Your task to perform on an android device: set the timer Image 0: 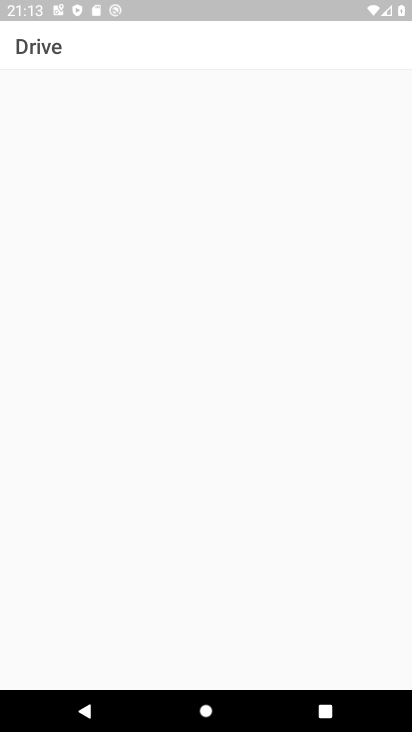
Step 0: press home button
Your task to perform on an android device: set the timer Image 1: 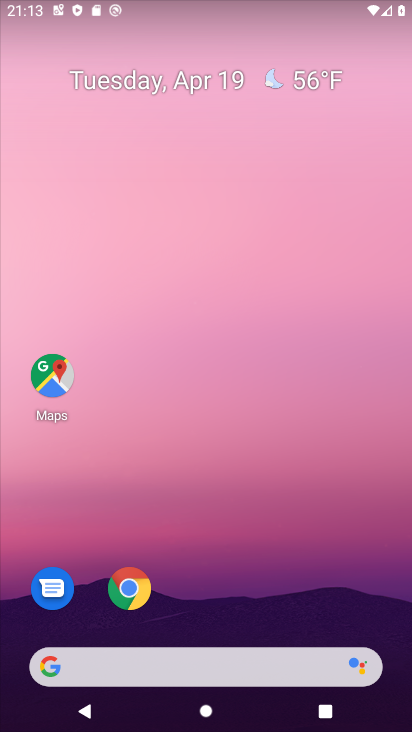
Step 1: drag from (246, 618) to (301, 52)
Your task to perform on an android device: set the timer Image 2: 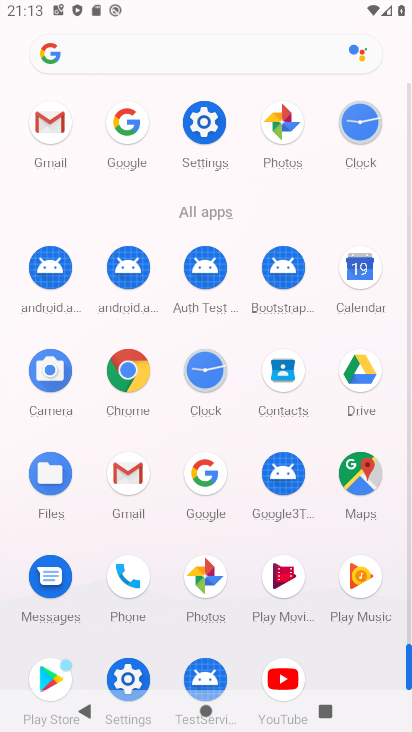
Step 2: click (206, 374)
Your task to perform on an android device: set the timer Image 3: 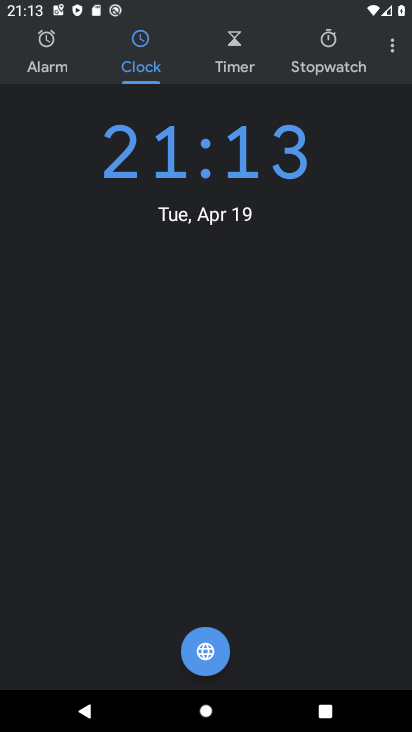
Step 3: click (241, 39)
Your task to perform on an android device: set the timer Image 4: 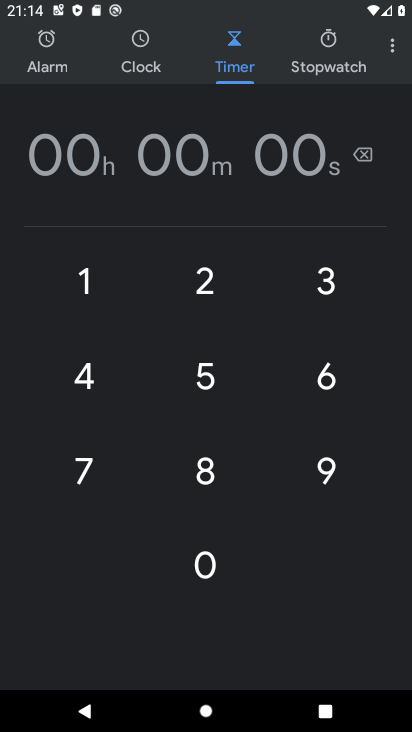
Step 4: type "123"
Your task to perform on an android device: set the timer Image 5: 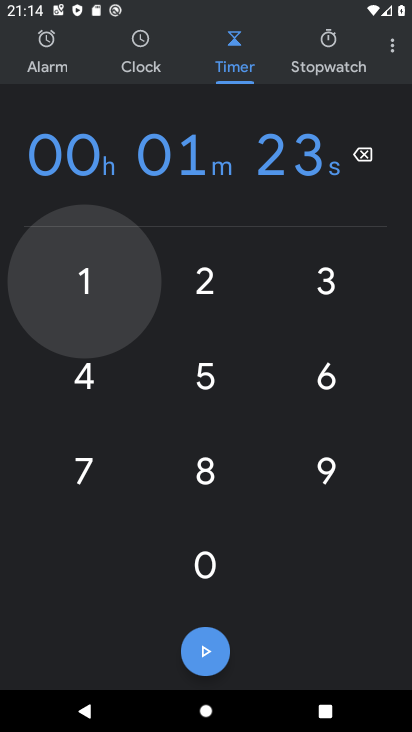
Step 5: click (198, 656)
Your task to perform on an android device: set the timer Image 6: 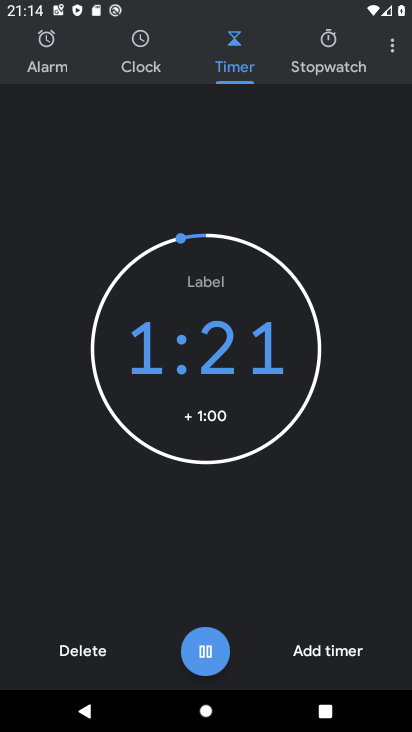
Step 6: click (198, 656)
Your task to perform on an android device: set the timer Image 7: 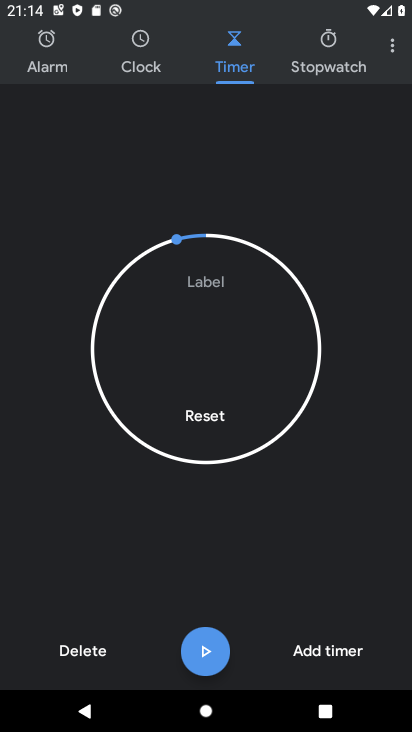
Step 7: task complete